Your task to perform on an android device: Search for seafood restaurants on Google Maps Image 0: 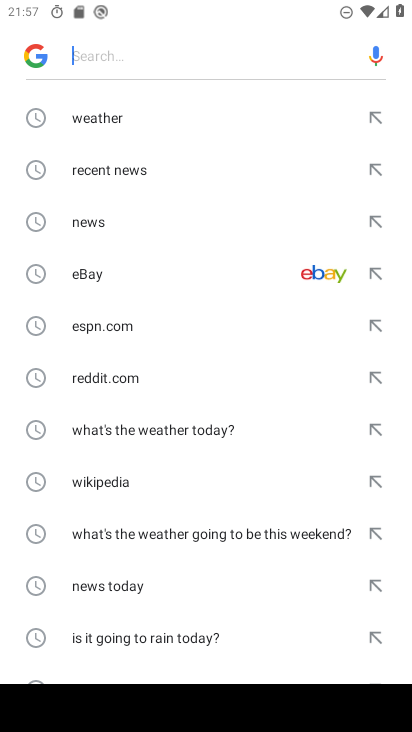
Step 0: press home button
Your task to perform on an android device: Search for seafood restaurants on Google Maps Image 1: 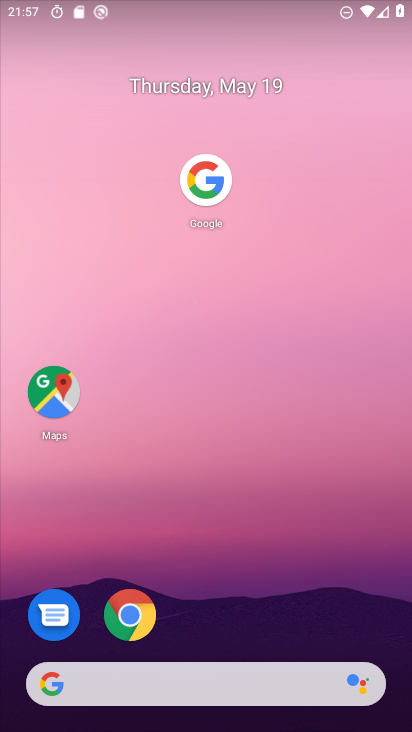
Step 1: click (54, 396)
Your task to perform on an android device: Search for seafood restaurants on Google Maps Image 2: 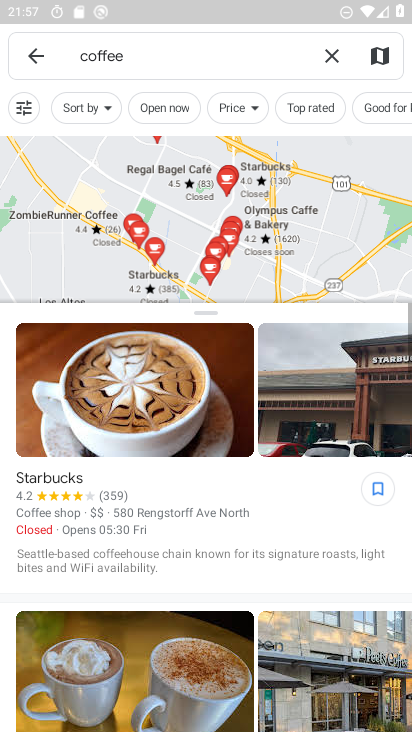
Step 2: click (186, 71)
Your task to perform on an android device: Search for seafood restaurants on Google Maps Image 3: 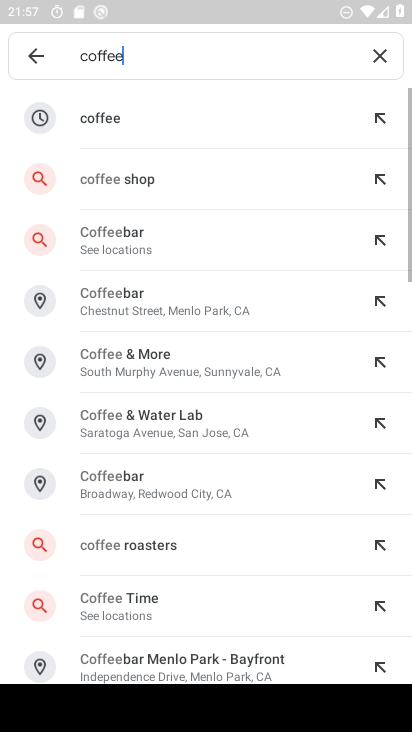
Step 3: click (382, 52)
Your task to perform on an android device: Search for seafood restaurants on Google Maps Image 4: 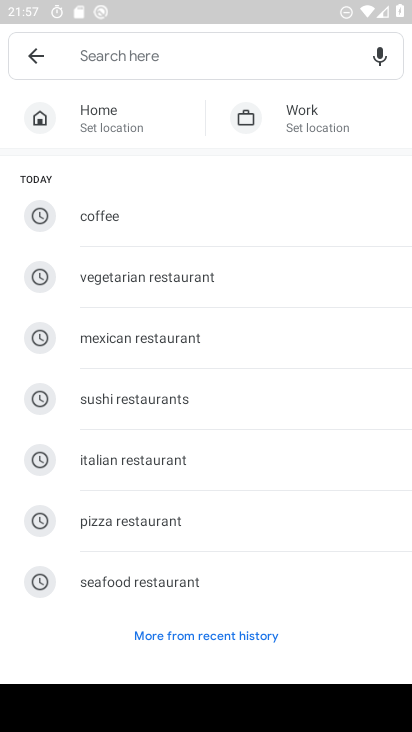
Step 4: click (157, 573)
Your task to perform on an android device: Search for seafood restaurants on Google Maps Image 5: 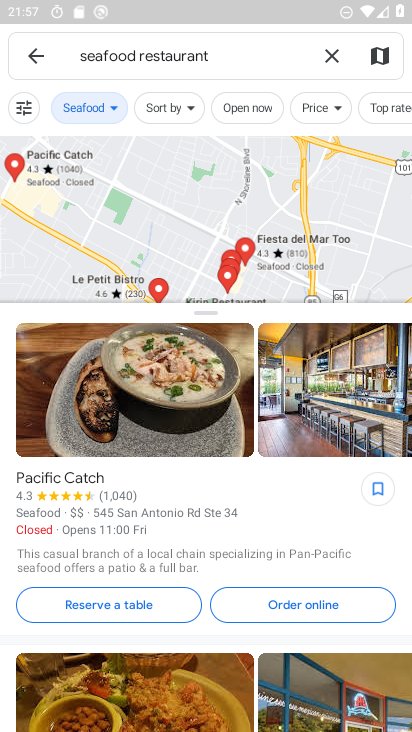
Step 5: task complete